Your task to perform on an android device: Open calendar and show me the first week of next month Image 0: 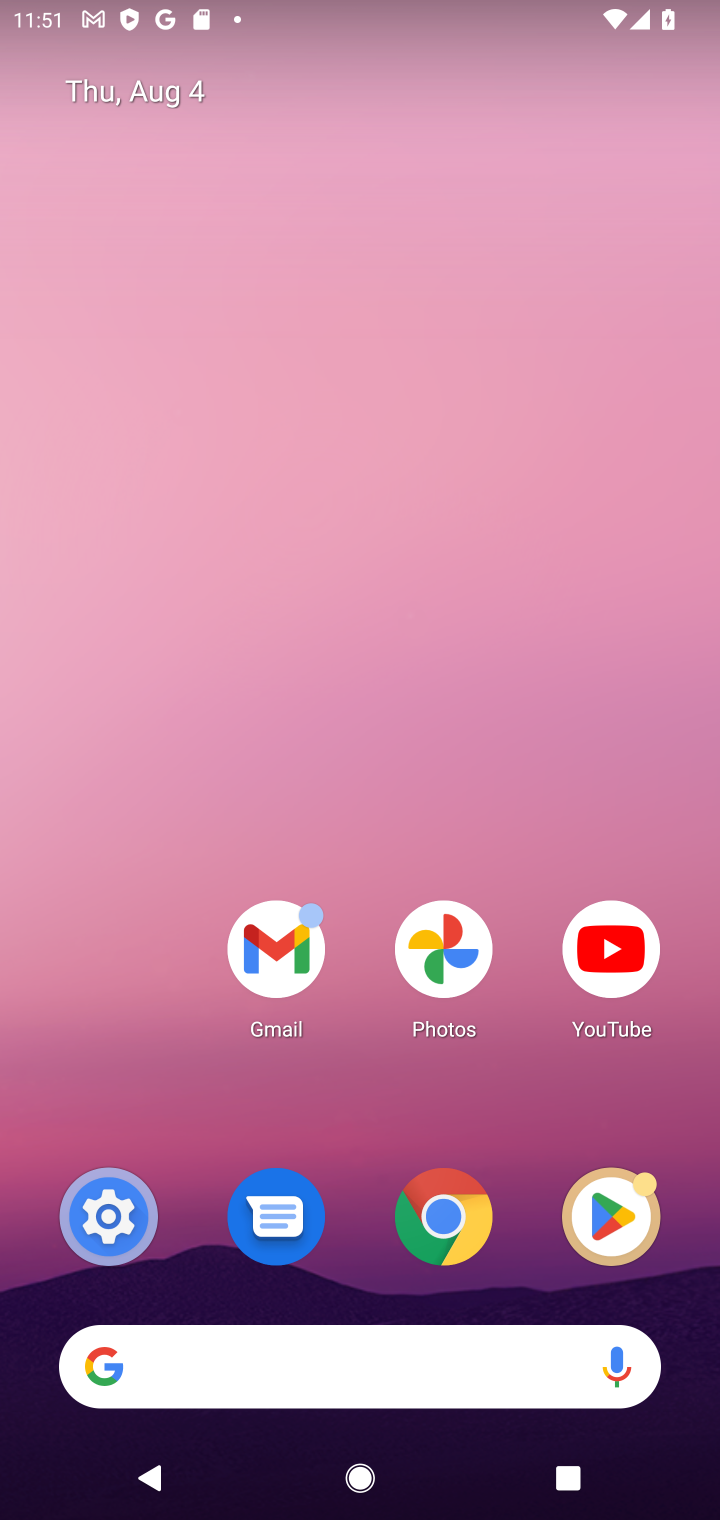
Step 0: drag from (112, 1043) to (178, 20)
Your task to perform on an android device: Open calendar and show me the first week of next month Image 1: 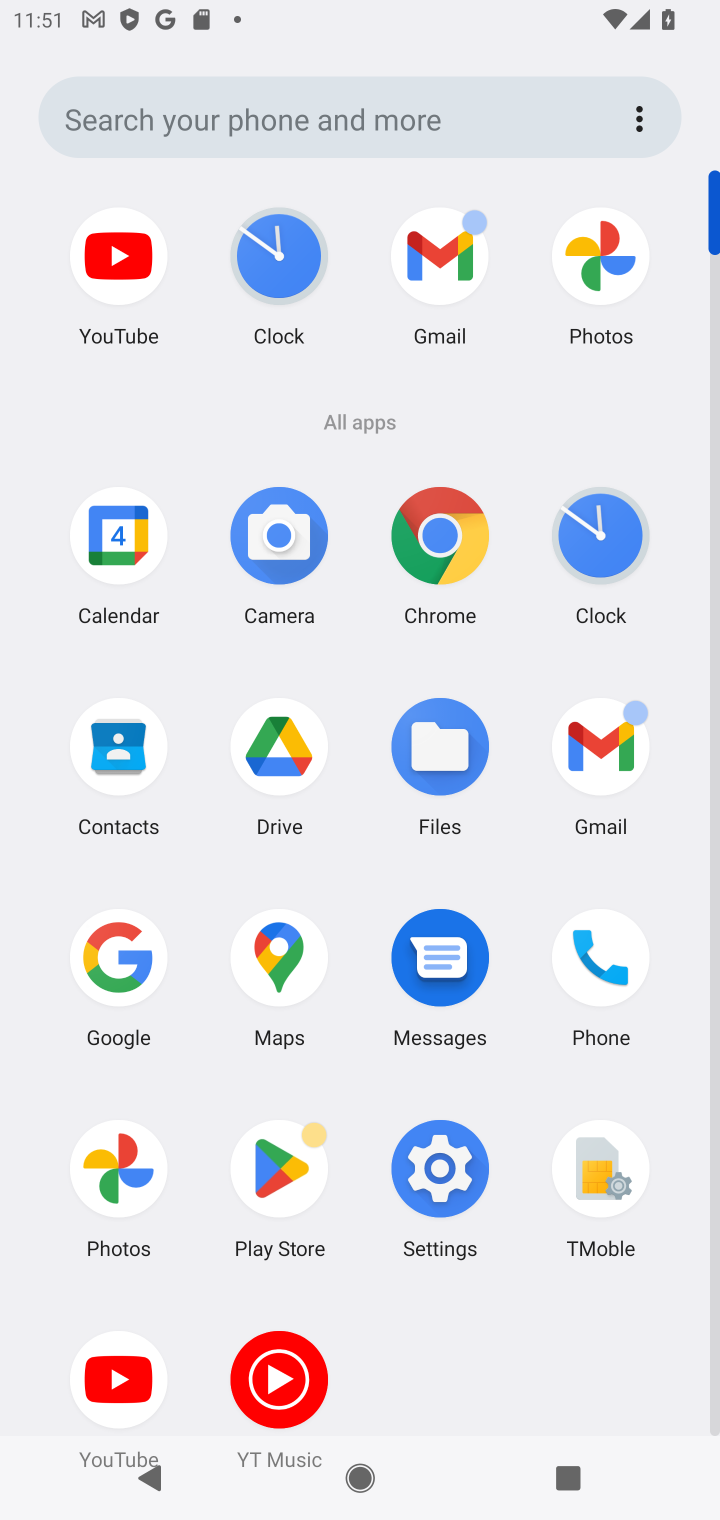
Step 1: click (117, 557)
Your task to perform on an android device: Open calendar and show me the first week of next month Image 2: 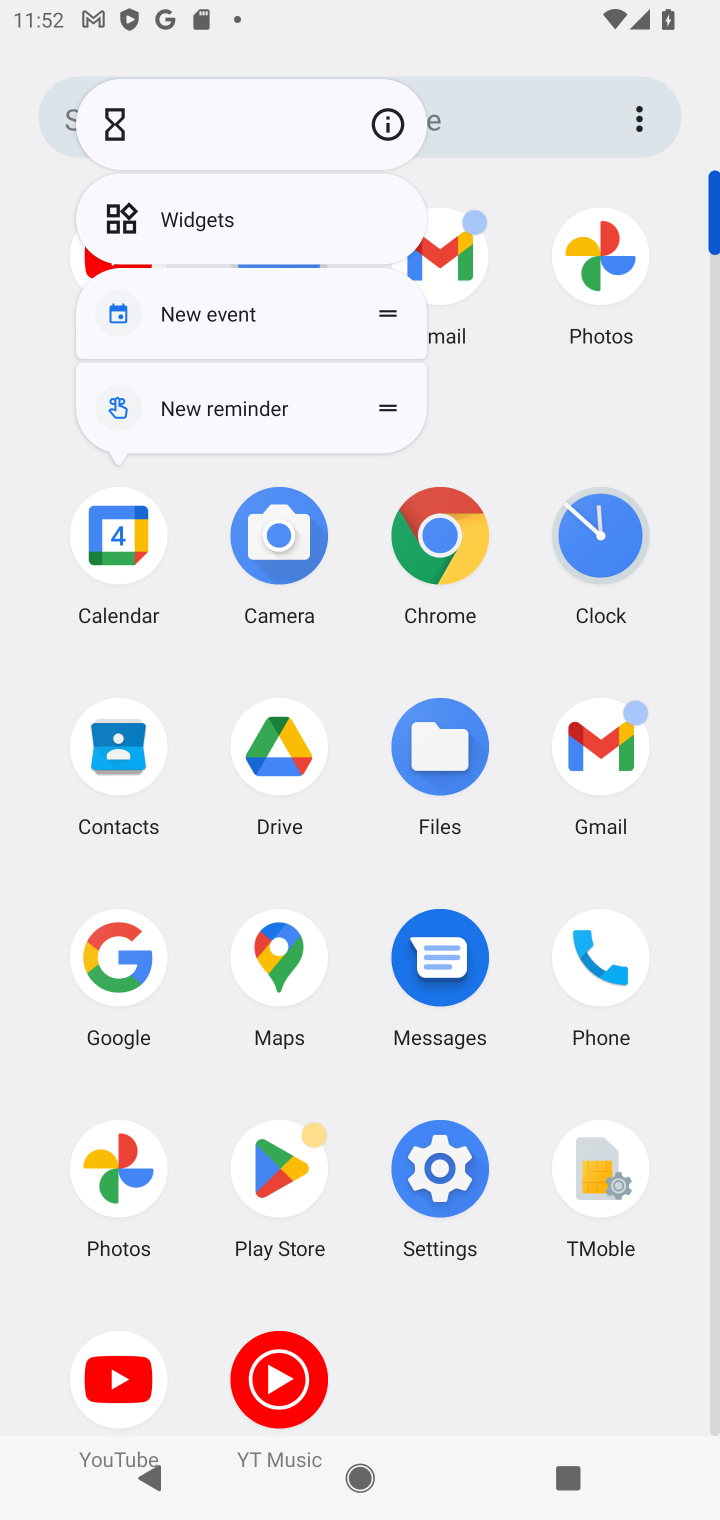
Step 2: press home button
Your task to perform on an android device: Open calendar and show me the first week of next month Image 3: 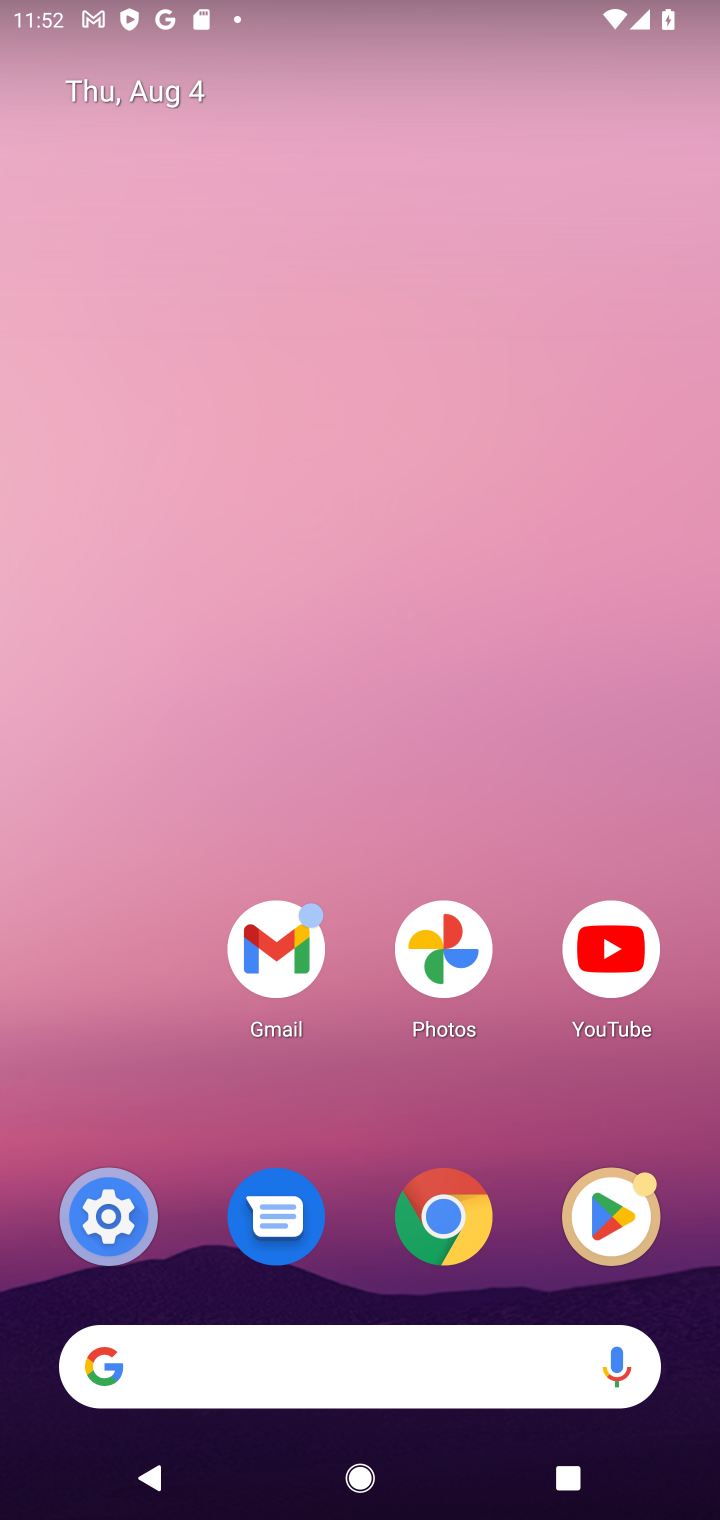
Step 3: drag from (182, 583) to (208, 324)
Your task to perform on an android device: Open calendar and show me the first week of next month Image 4: 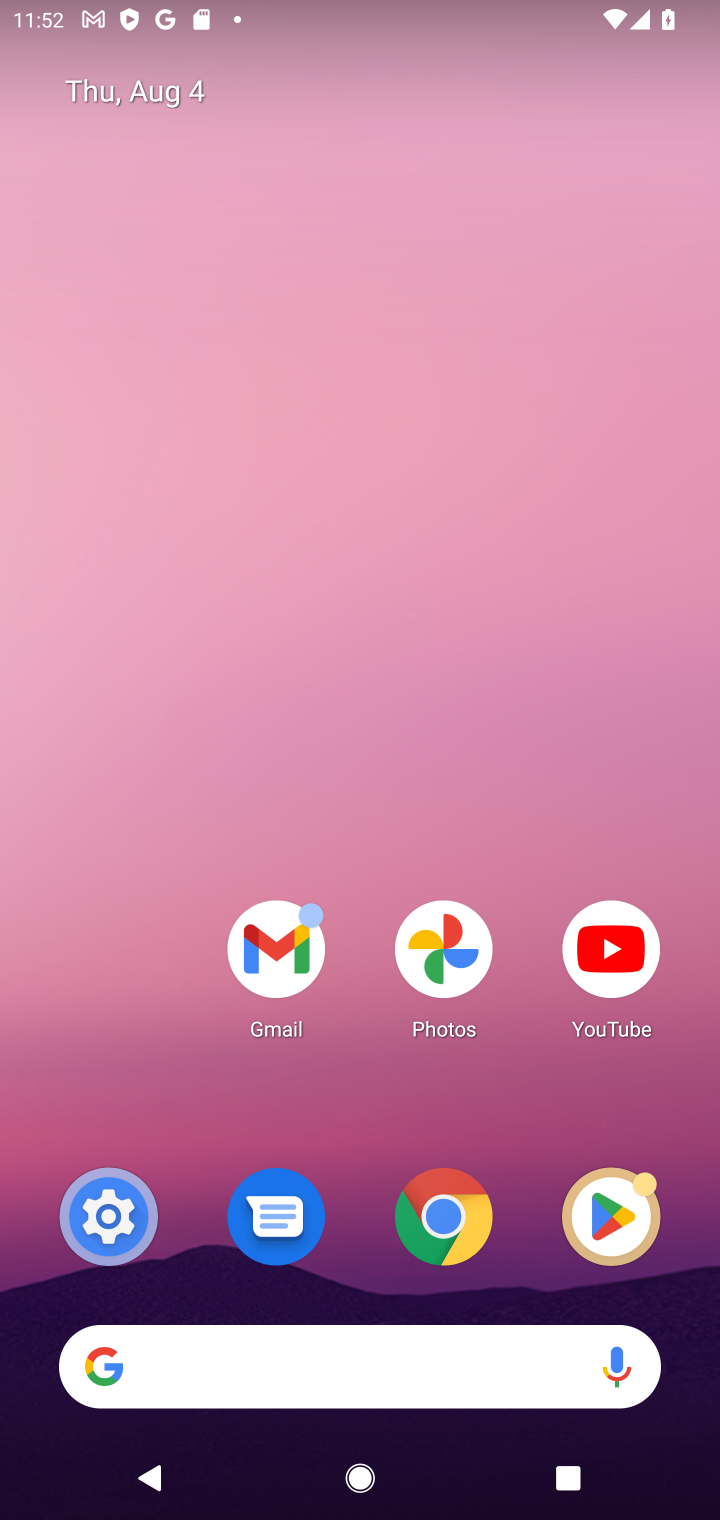
Step 4: drag from (127, 785) to (144, 271)
Your task to perform on an android device: Open calendar and show me the first week of next month Image 5: 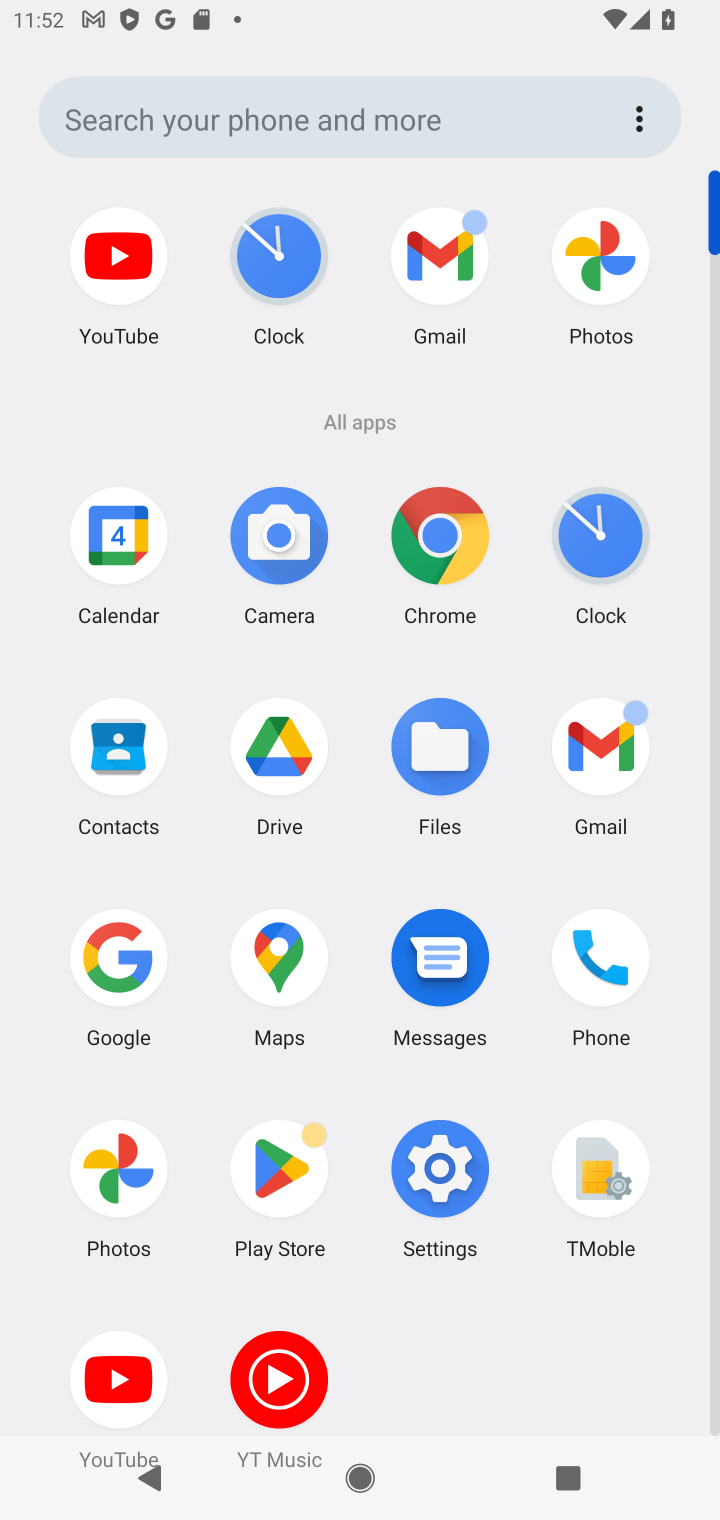
Step 5: click (119, 537)
Your task to perform on an android device: Open calendar and show me the first week of next month Image 6: 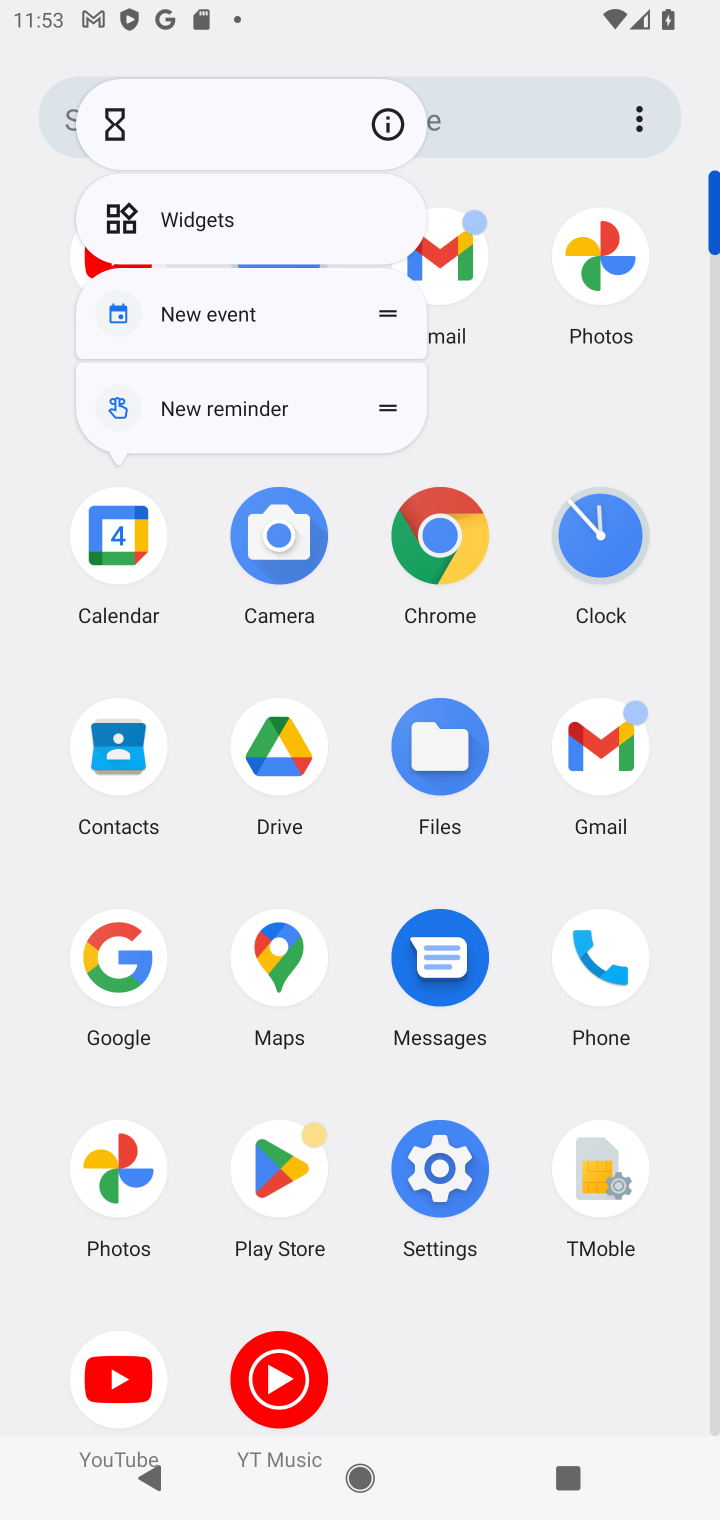
Step 6: click (116, 542)
Your task to perform on an android device: Open calendar and show me the first week of next month Image 7: 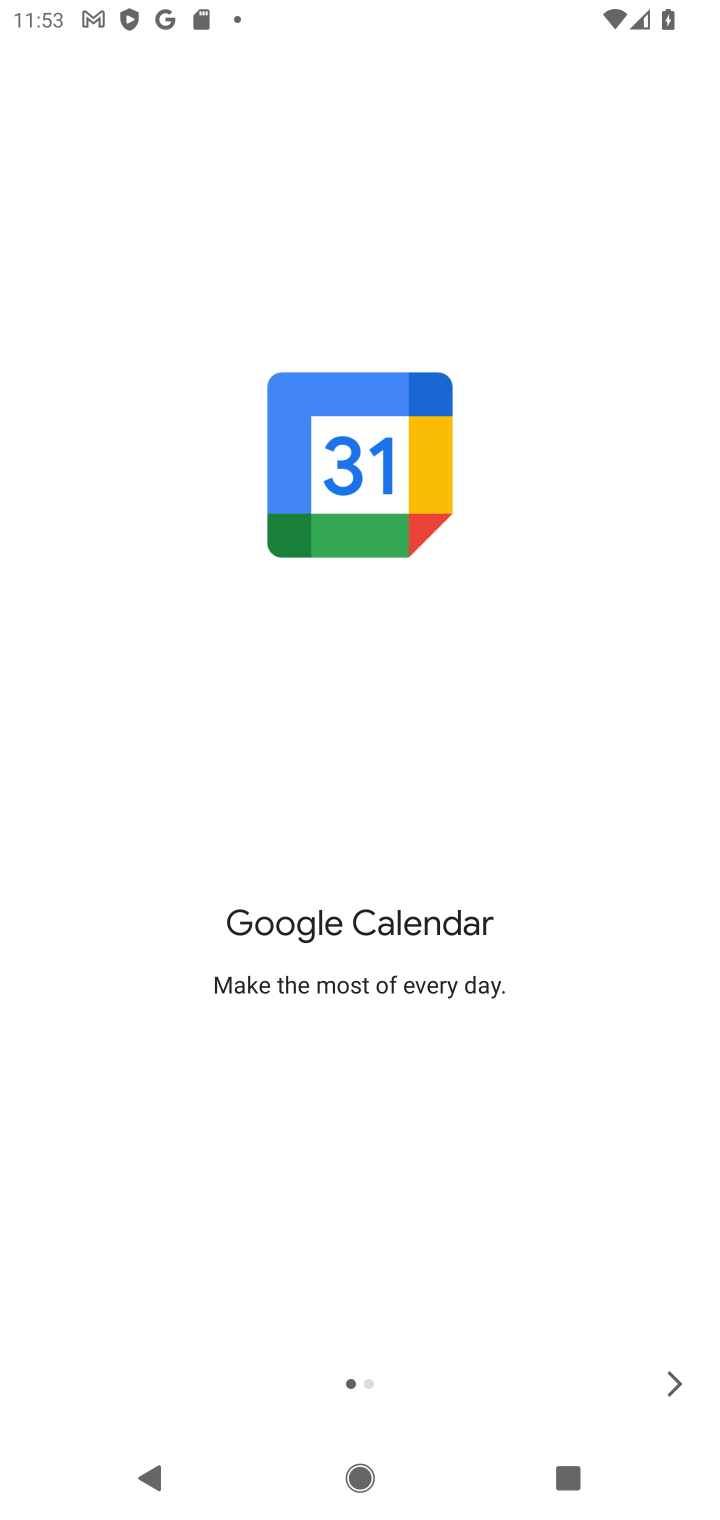
Step 7: click (657, 1385)
Your task to perform on an android device: Open calendar and show me the first week of next month Image 8: 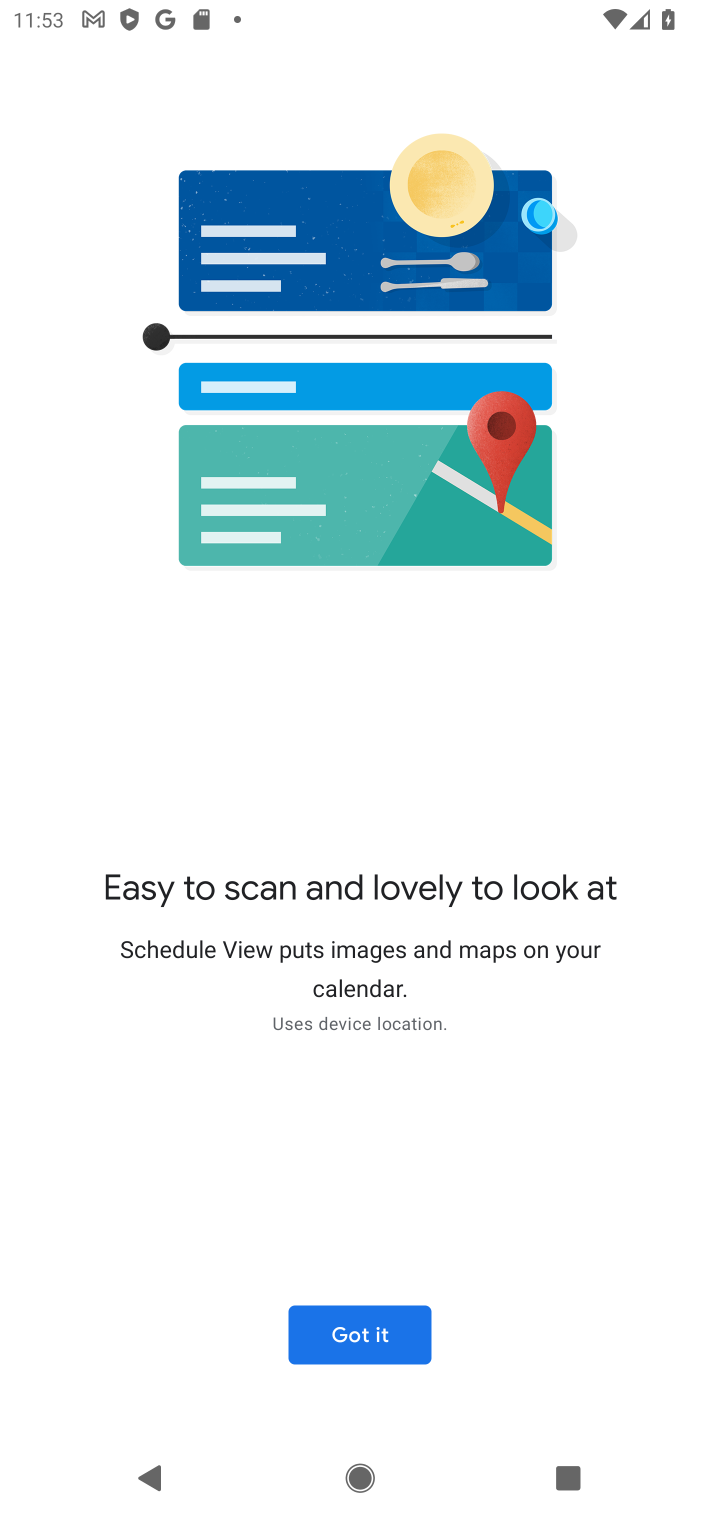
Step 8: click (381, 1335)
Your task to perform on an android device: Open calendar and show me the first week of next month Image 9: 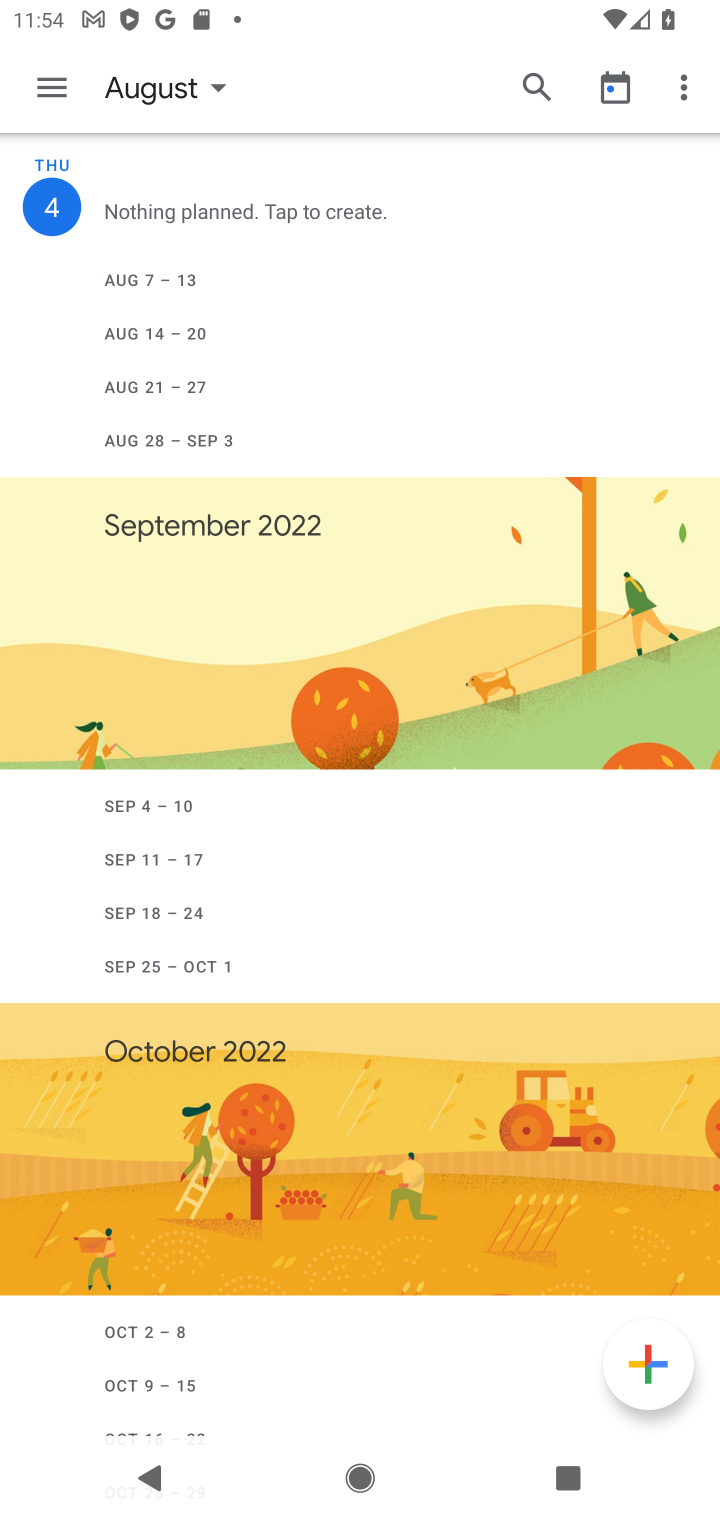
Step 9: task complete